Your task to perform on an android device: Open battery settings Image 0: 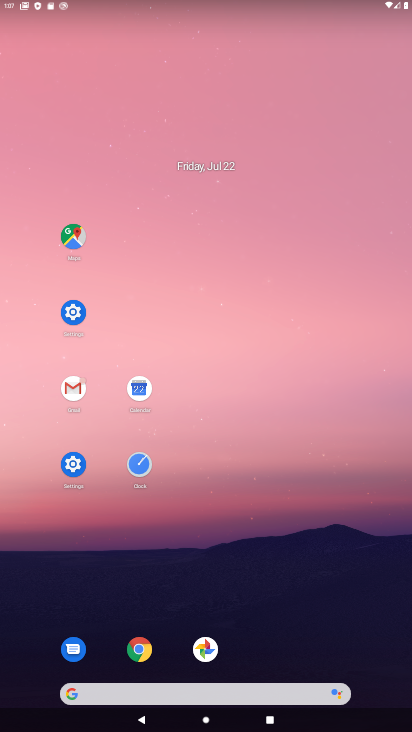
Step 0: click (77, 463)
Your task to perform on an android device: Open battery settings Image 1: 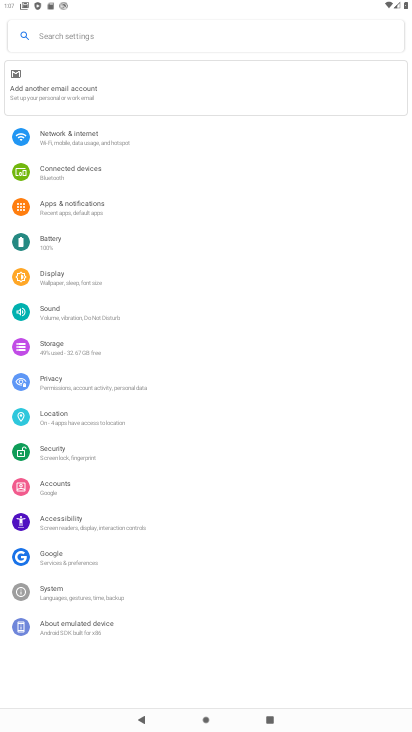
Step 1: click (43, 234)
Your task to perform on an android device: Open battery settings Image 2: 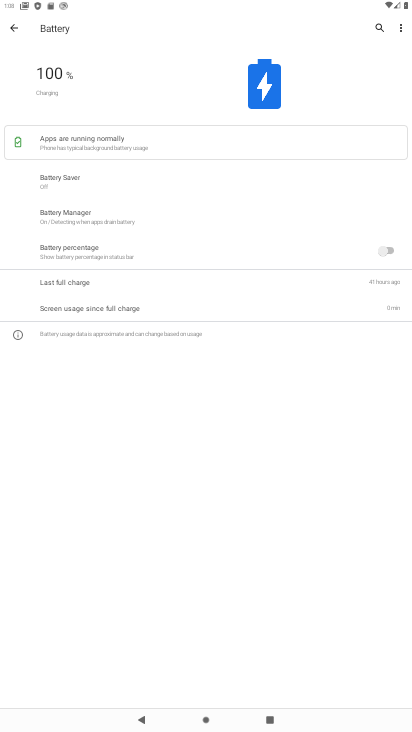
Step 2: task complete